Your task to perform on an android device: Empty the shopping cart on target.com. Search for "usb-a" on target.com, select the first entry, and add it to the cart. Image 0: 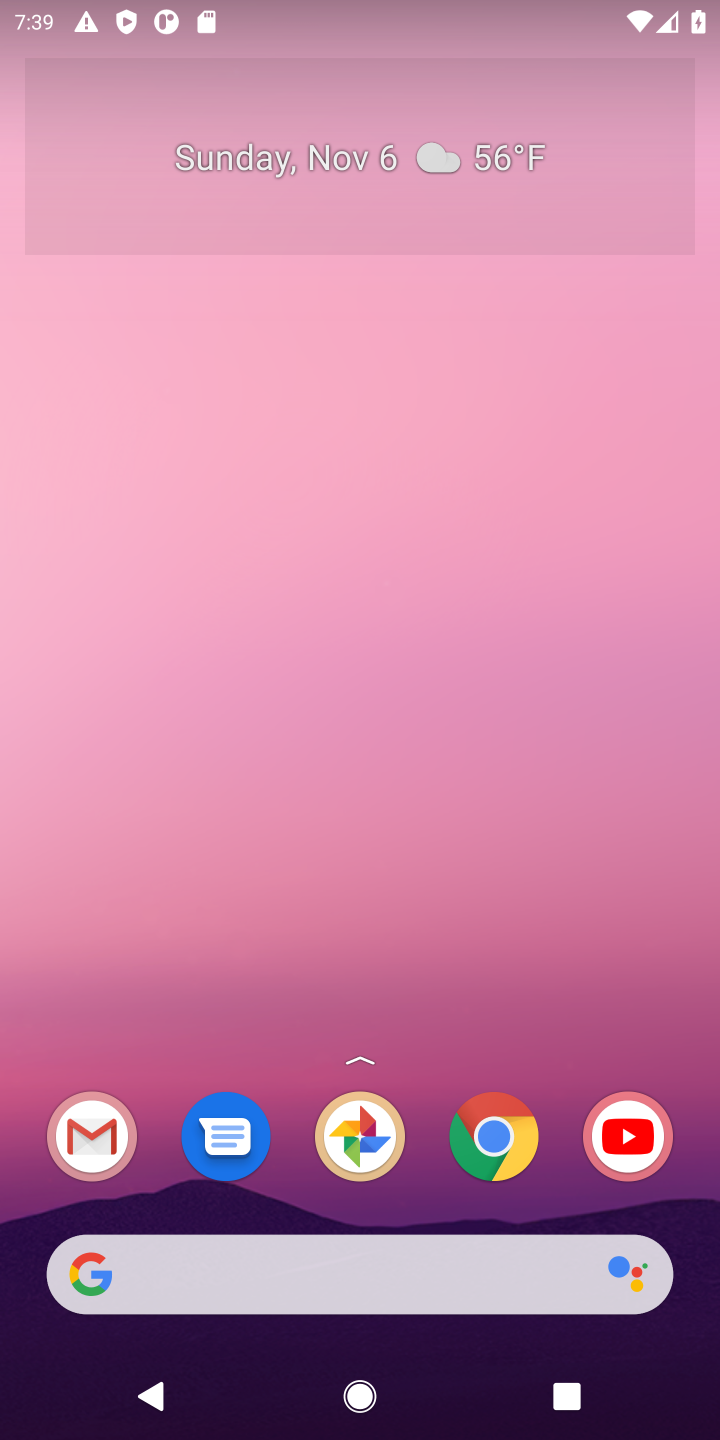
Step 0: click (343, 1286)
Your task to perform on an android device: Empty the shopping cart on target.com. Search for "usb-a" on target.com, select the first entry, and add it to the cart. Image 1: 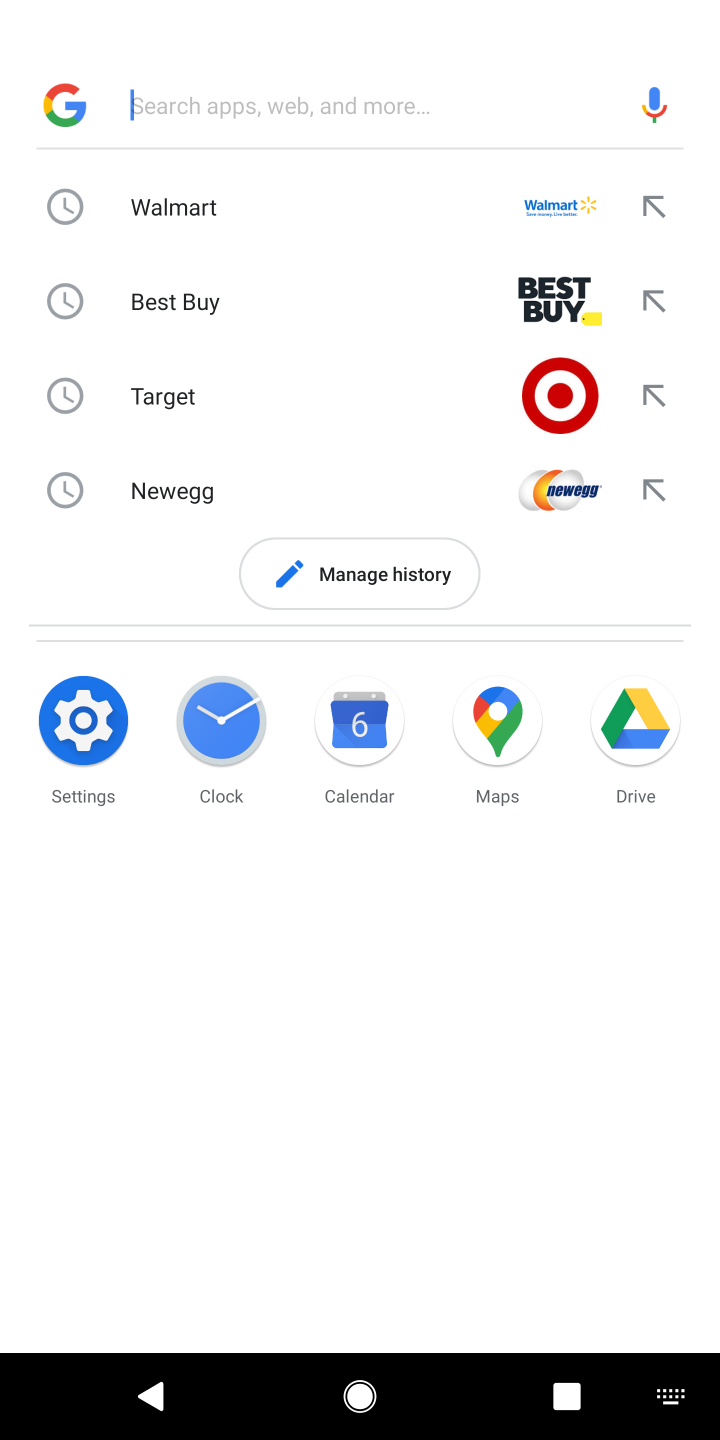
Step 1: click (216, 389)
Your task to perform on an android device: Empty the shopping cart on target.com. Search for "usb-a" on target.com, select the first entry, and add it to the cart. Image 2: 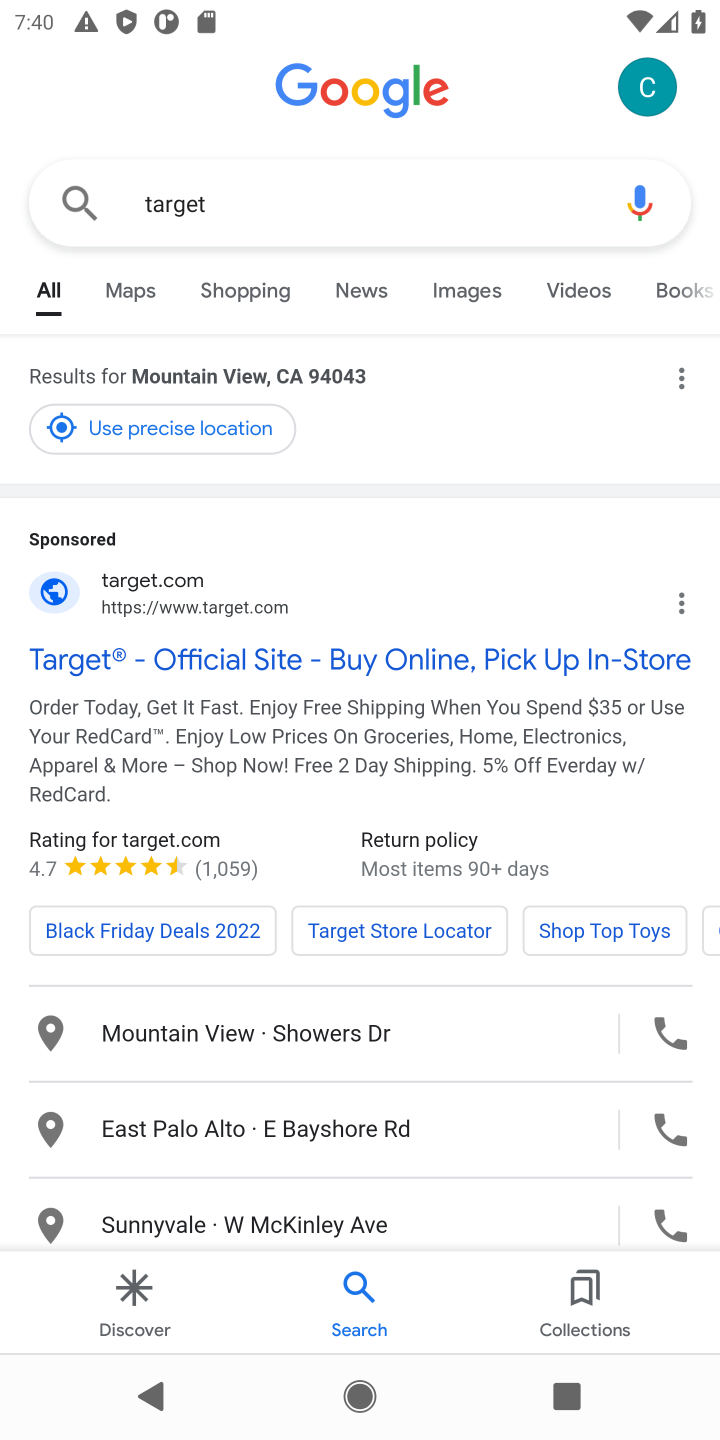
Step 2: click (212, 643)
Your task to perform on an android device: Empty the shopping cart on target.com. Search for "usb-a" on target.com, select the first entry, and add it to the cart. Image 3: 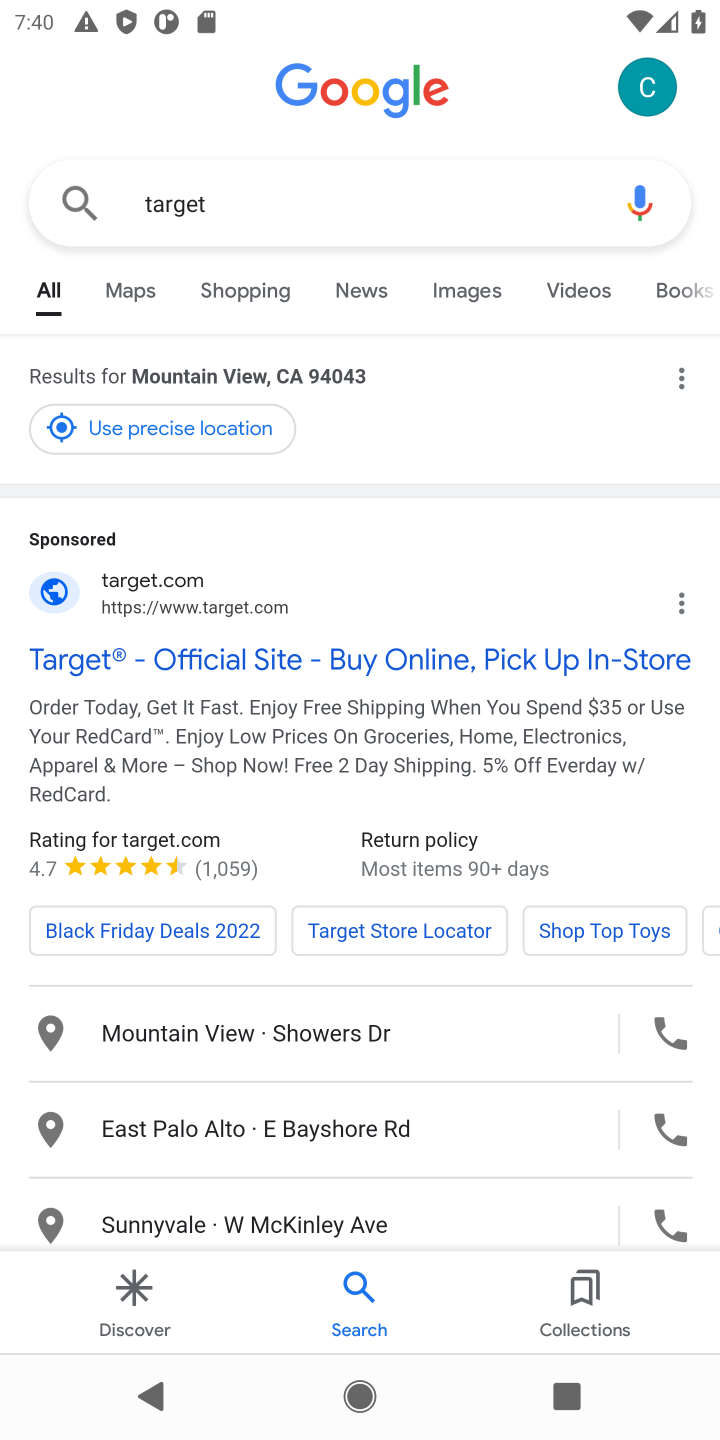
Step 3: task complete